Your task to perform on an android device: stop showing notifications on the lock screen Image 0: 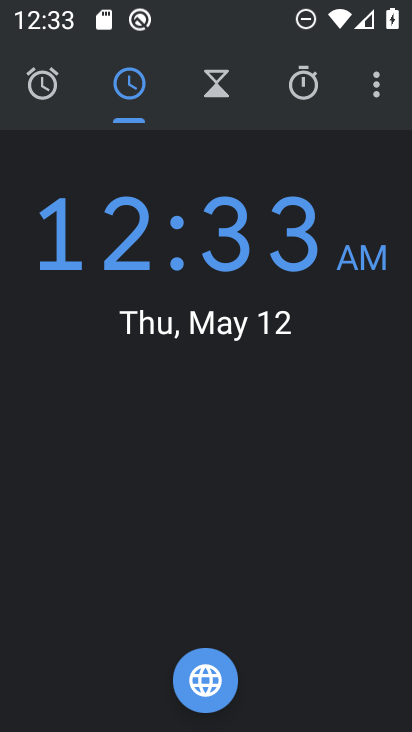
Step 0: press home button
Your task to perform on an android device: stop showing notifications on the lock screen Image 1: 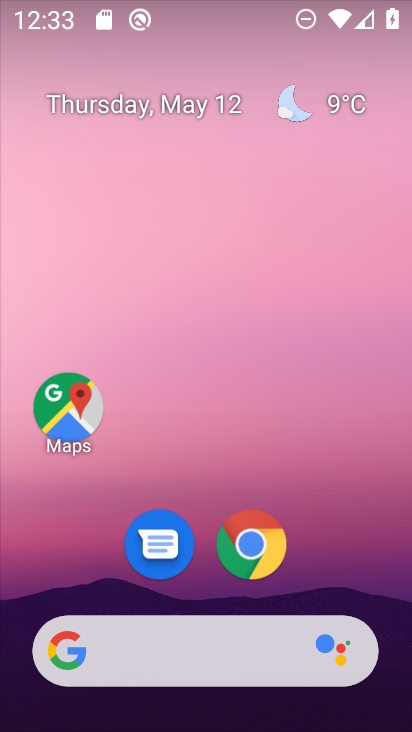
Step 1: drag from (230, 724) to (233, 70)
Your task to perform on an android device: stop showing notifications on the lock screen Image 2: 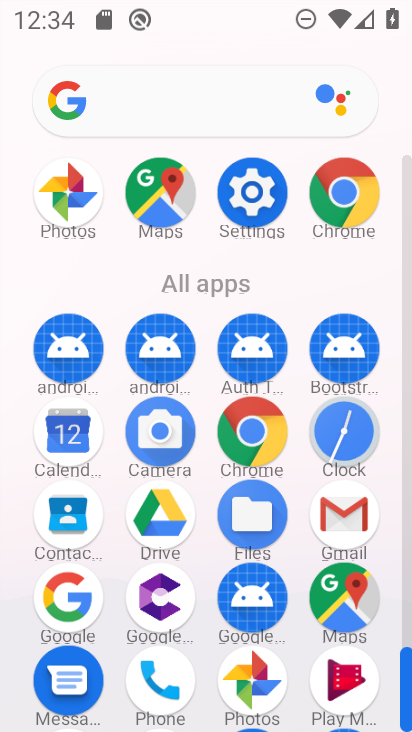
Step 2: click (250, 196)
Your task to perform on an android device: stop showing notifications on the lock screen Image 3: 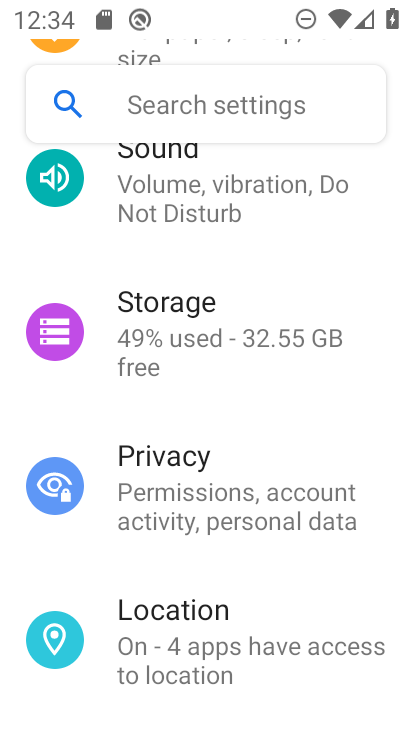
Step 3: drag from (185, 264) to (178, 660)
Your task to perform on an android device: stop showing notifications on the lock screen Image 4: 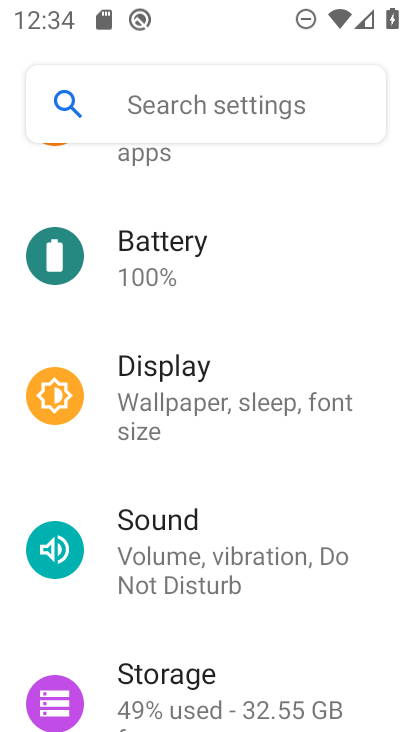
Step 4: drag from (215, 196) to (194, 658)
Your task to perform on an android device: stop showing notifications on the lock screen Image 5: 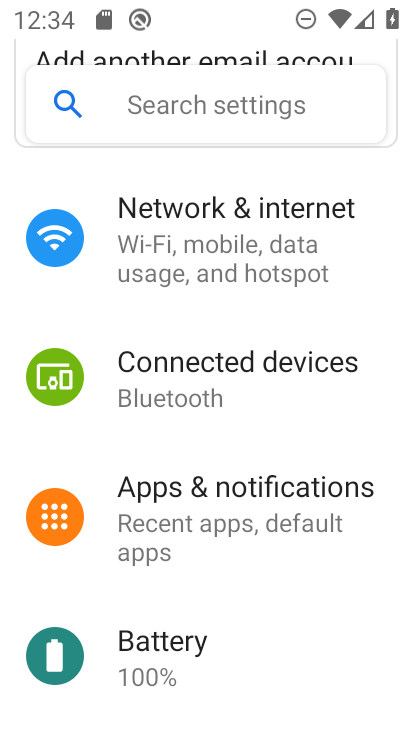
Step 5: click (205, 514)
Your task to perform on an android device: stop showing notifications on the lock screen Image 6: 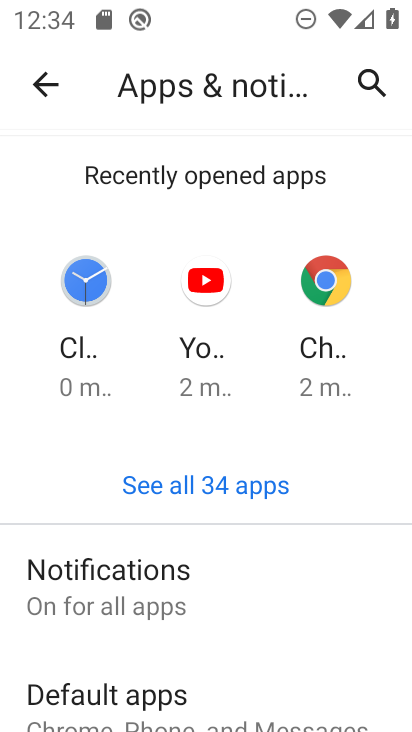
Step 6: click (117, 593)
Your task to perform on an android device: stop showing notifications on the lock screen Image 7: 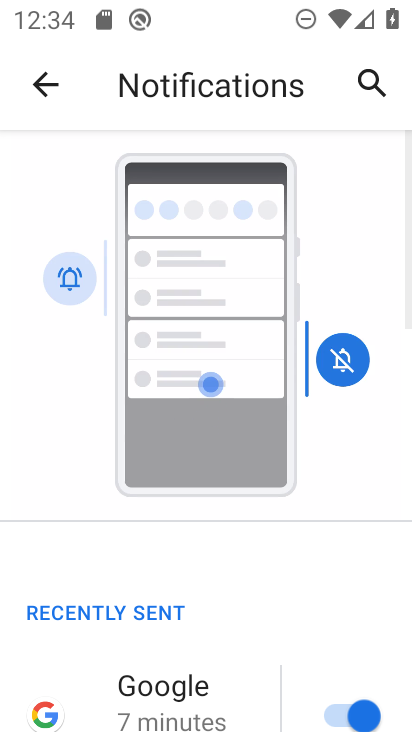
Step 7: drag from (212, 697) to (228, 361)
Your task to perform on an android device: stop showing notifications on the lock screen Image 8: 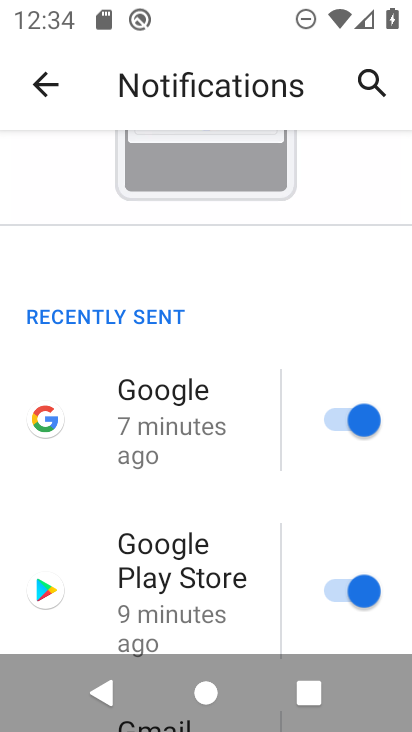
Step 8: drag from (240, 638) to (241, 259)
Your task to perform on an android device: stop showing notifications on the lock screen Image 9: 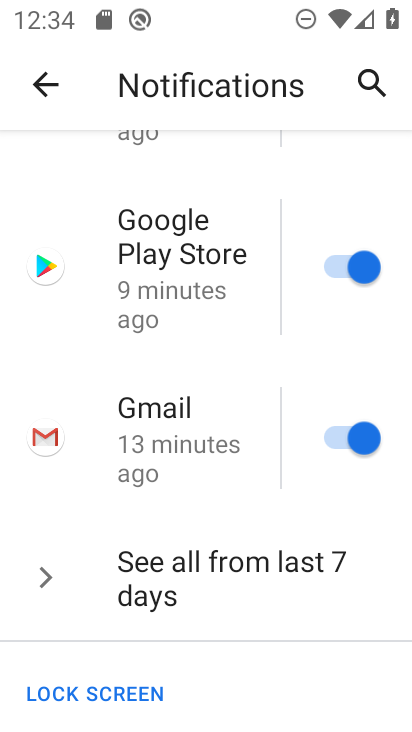
Step 9: drag from (231, 686) to (233, 249)
Your task to perform on an android device: stop showing notifications on the lock screen Image 10: 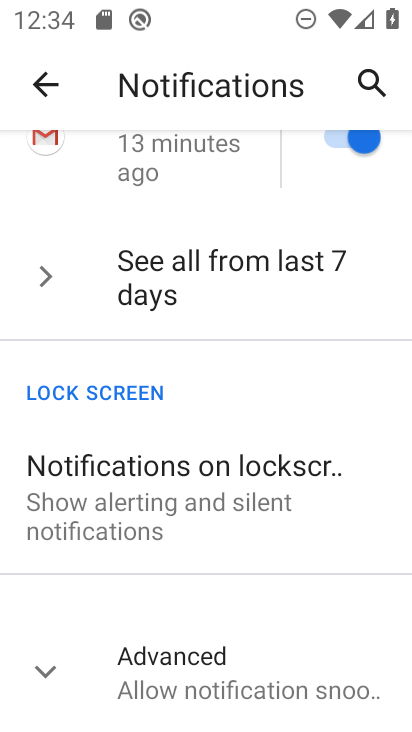
Step 10: click (195, 483)
Your task to perform on an android device: stop showing notifications on the lock screen Image 11: 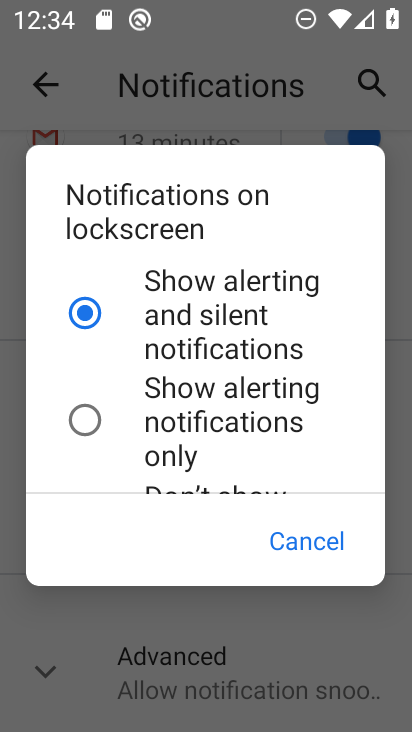
Step 11: drag from (188, 456) to (189, 193)
Your task to perform on an android device: stop showing notifications on the lock screen Image 12: 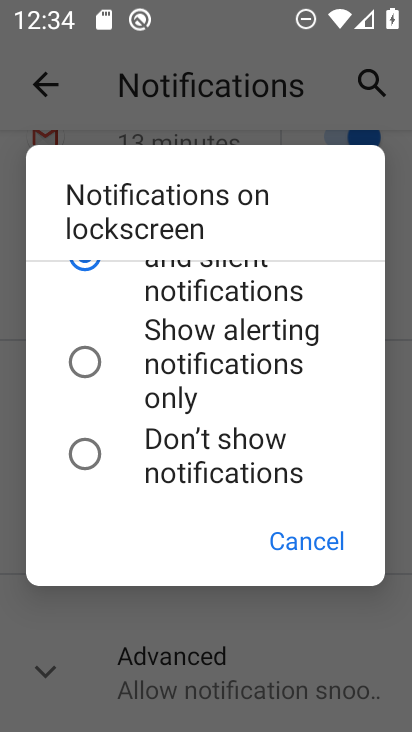
Step 12: click (95, 458)
Your task to perform on an android device: stop showing notifications on the lock screen Image 13: 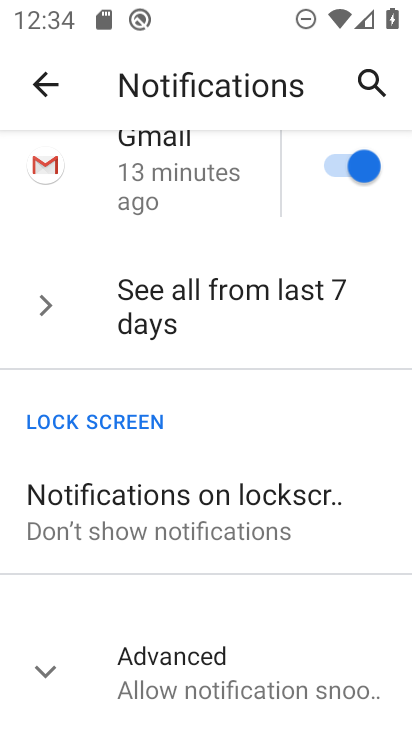
Step 13: task complete